Your task to perform on an android device: add a contact Image 0: 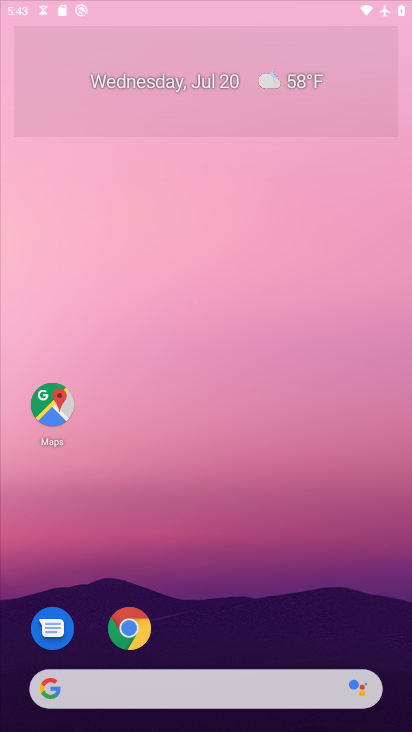
Step 0: press home button
Your task to perform on an android device: add a contact Image 1: 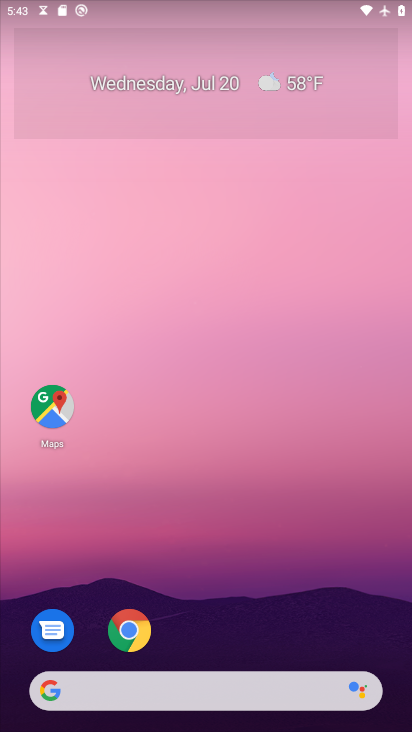
Step 1: drag from (200, 649) to (216, 78)
Your task to perform on an android device: add a contact Image 2: 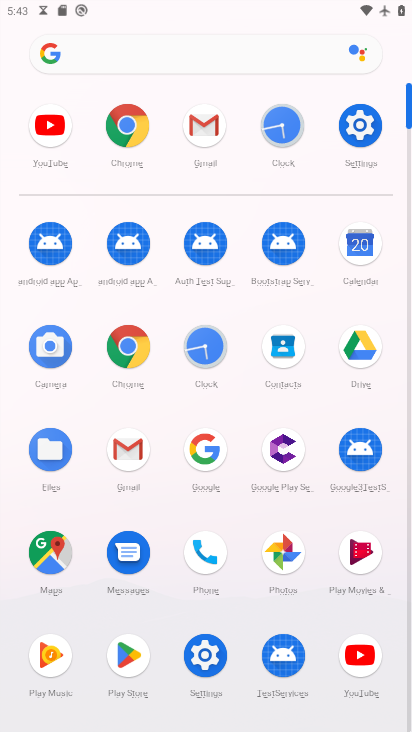
Step 2: click (279, 341)
Your task to perform on an android device: add a contact Image 3: 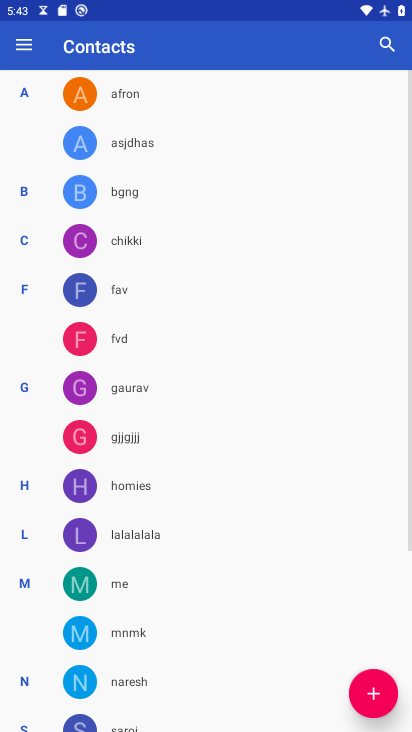
Step 3: click (376, 698)
Your task to perform on an android device: add a contact Image 4: 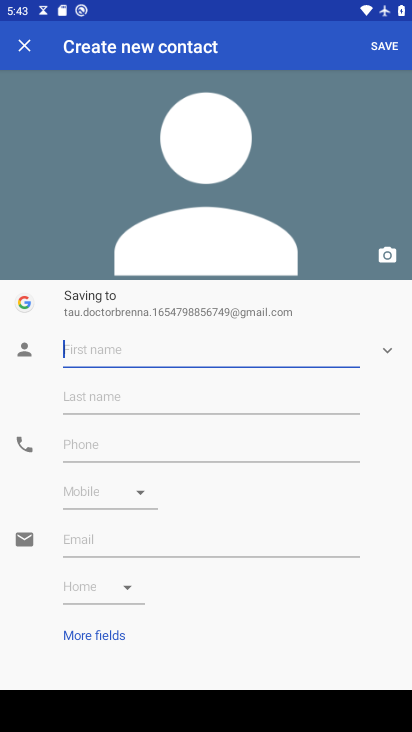
Step 4: type "hghggh"
Your task to perform on an android device: add a contact Image 5: 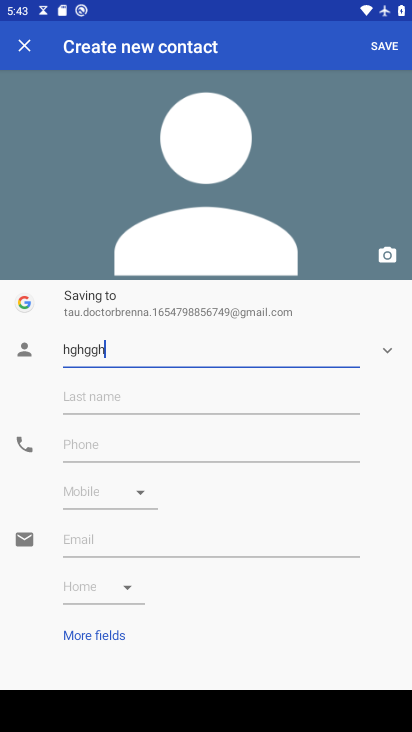
Step 5: click (124, 442)
Your task to perform on an android device: add a contact Image 6: 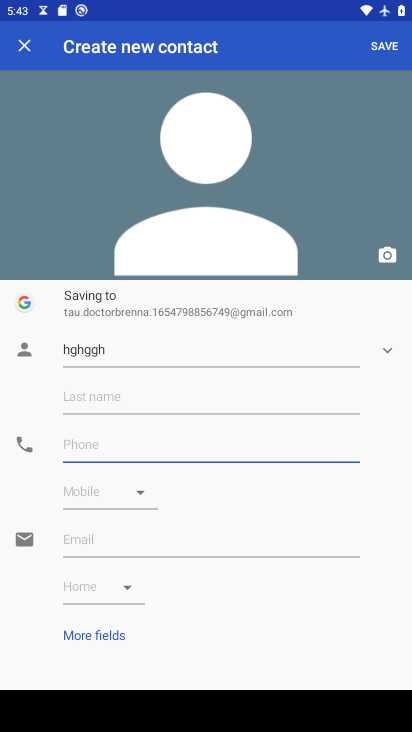
Step 6: type "7767"
Your task to perform on an android device: add a contact Image 7: 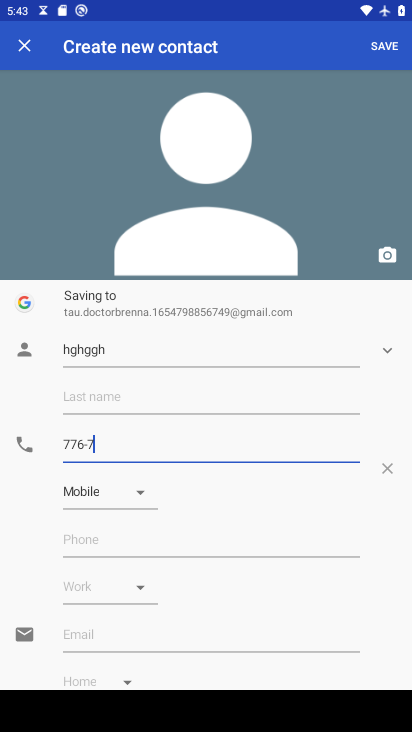
Step 7: click (382, 43)
Your task to perform on an android device: add a contact Image 8: 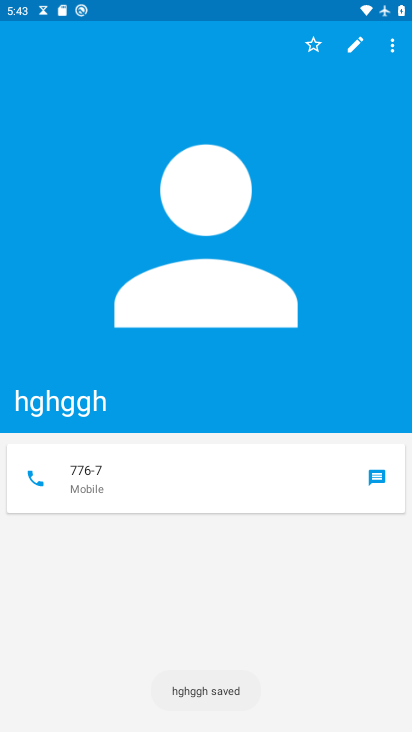
Step 8: task complete